Your task to perform on an android device: Search for "razer naga" on target.com, select the first entry, and add it to the cart. Image 0: 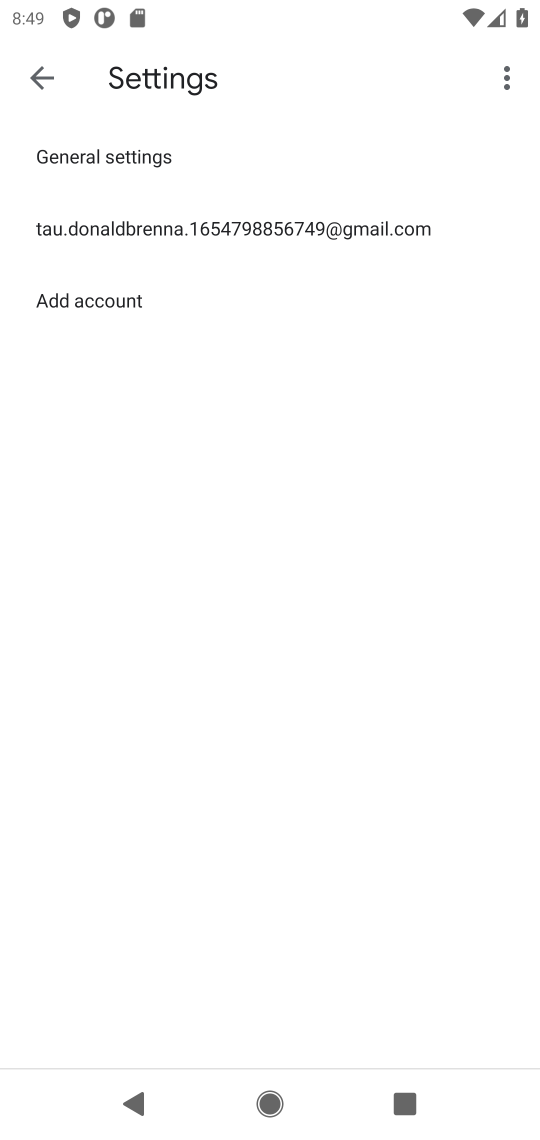
Step 0: press home button
Your task to perform on an android device: Search for "razer naga" on target.com, select the first entry, and add it to the cart. Image 1: 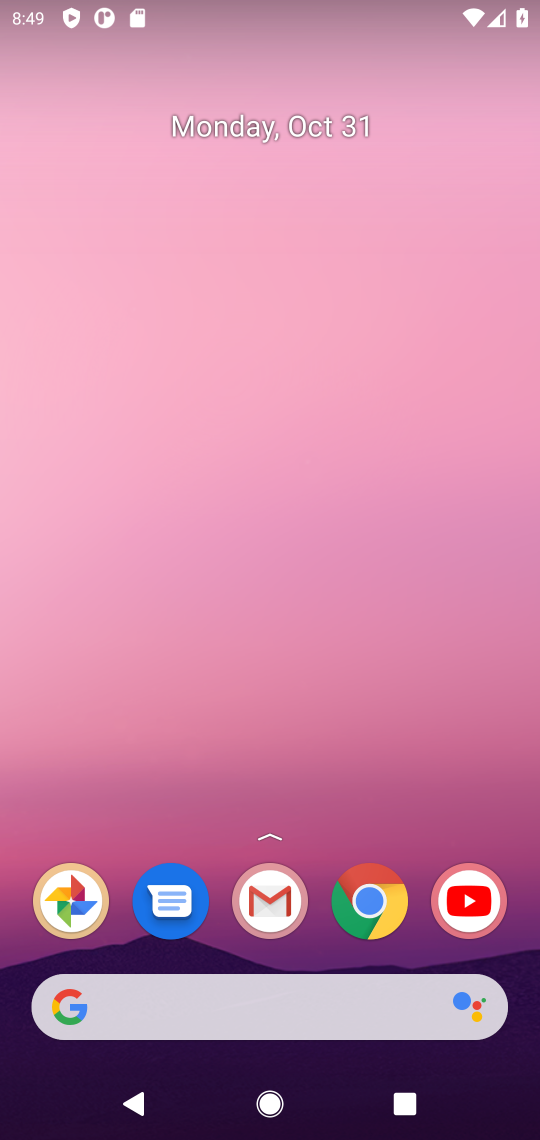
Step 1: drag from (193, 942) to (201, 146)
Your task to perform on an android device: Search for "razer naga" on target.com, select the first entry, and add it to the cart. Image 2: 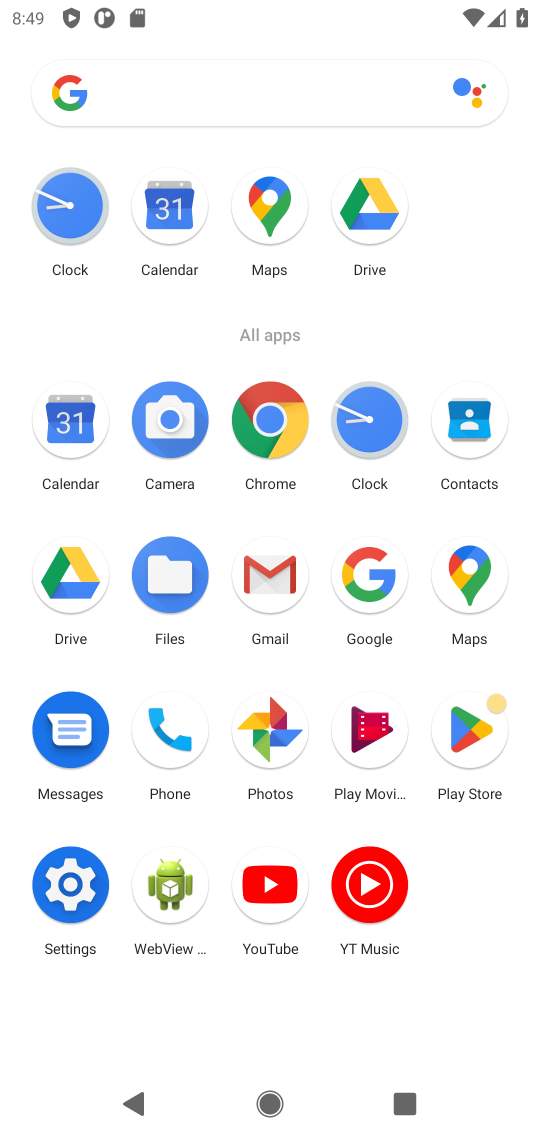
Step 2: click (372, 559)
Your task to perform on an android device: Search for "razer naga" on target.com, select the first entry, and add it to the cart. Image 3: 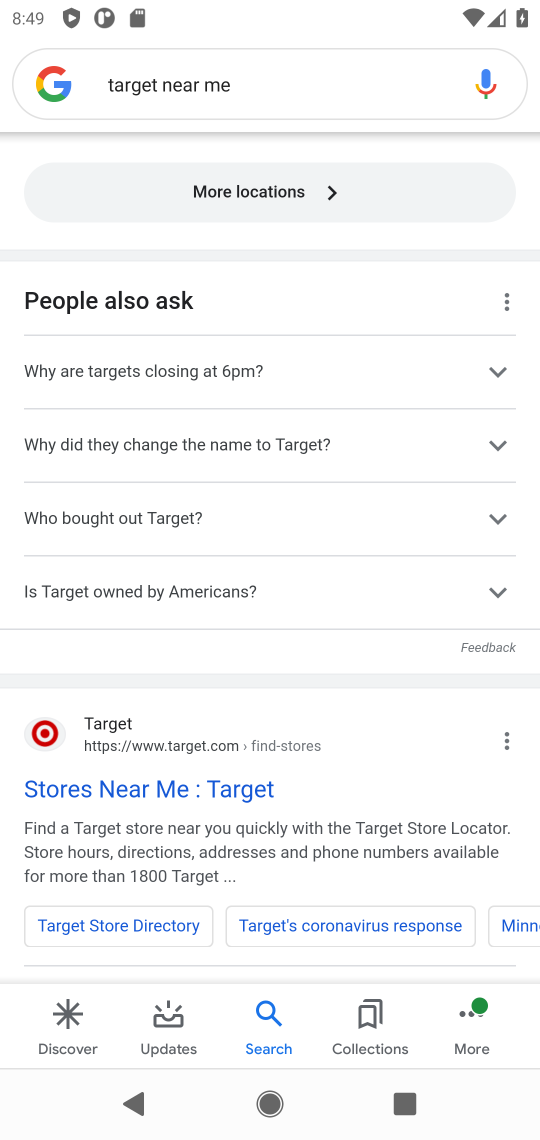
Step 3: click (48, 735)
Your task to perform on an android device: Search for "razer naga" on target.com, select the first entry, and add it to the cart. Image 4: 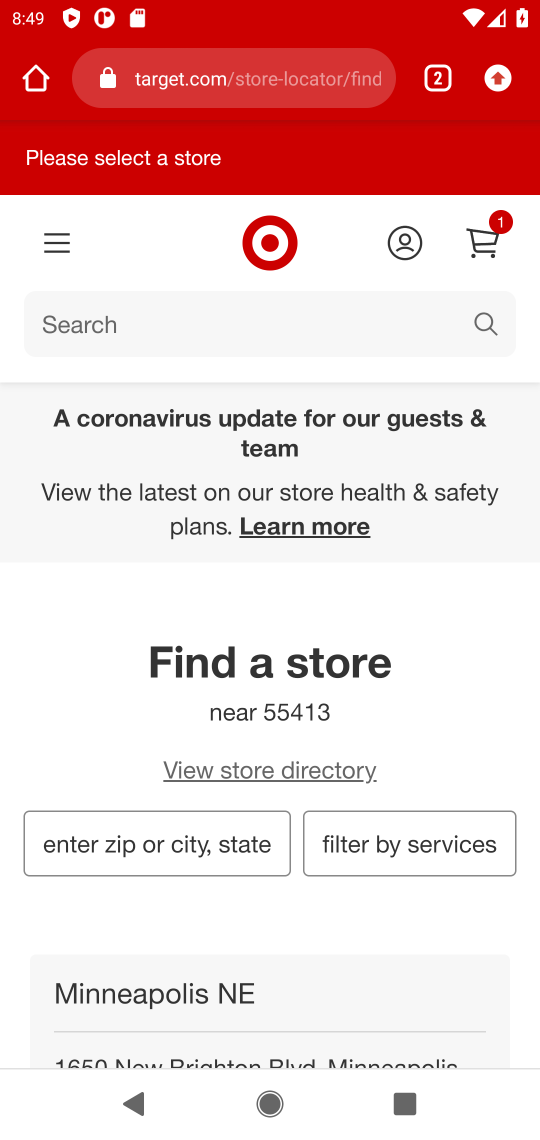
Step 4: click (220, 316)
Your task to perform on an android device: Search for "razer naga" on target.com, select the first entry, and add it to the cart. Image 5: 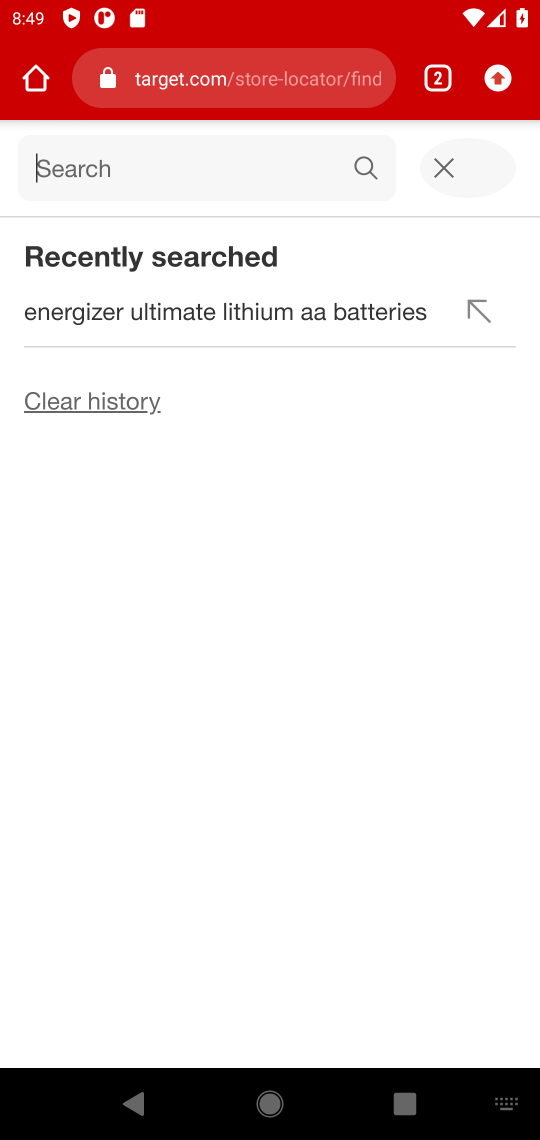
Step 5: type "razer naga"  "
Your task to perform on an android device: Search for "razer naga" on target.com, select the first entry, and add it to the cart. Image 6: 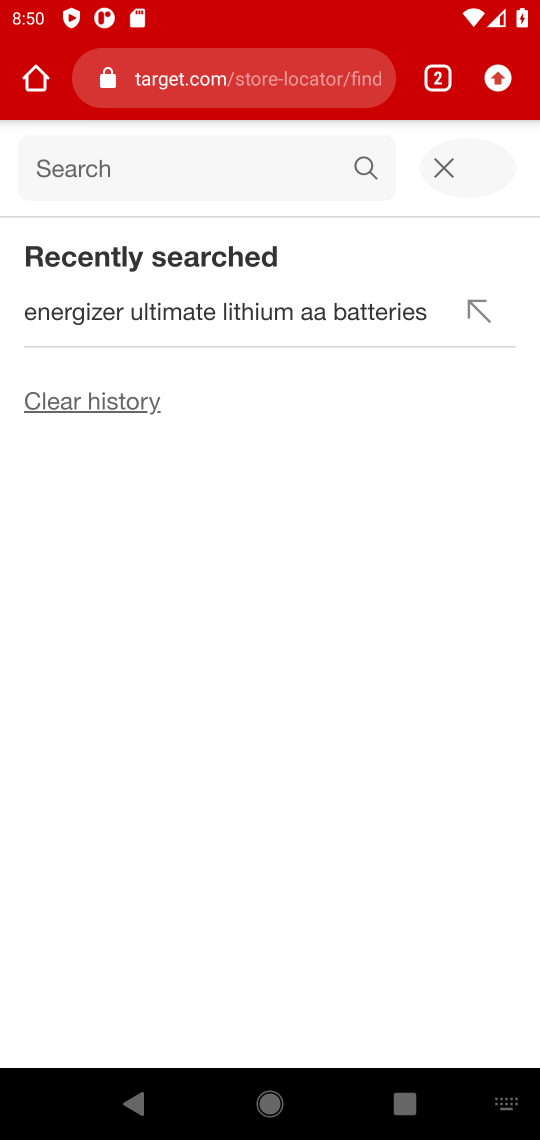
Step 6: click (120, 152)
Your task to perform on an android device: Search for "razer naga" on target.com, select the first entry, and add it to the cart. Image 7: 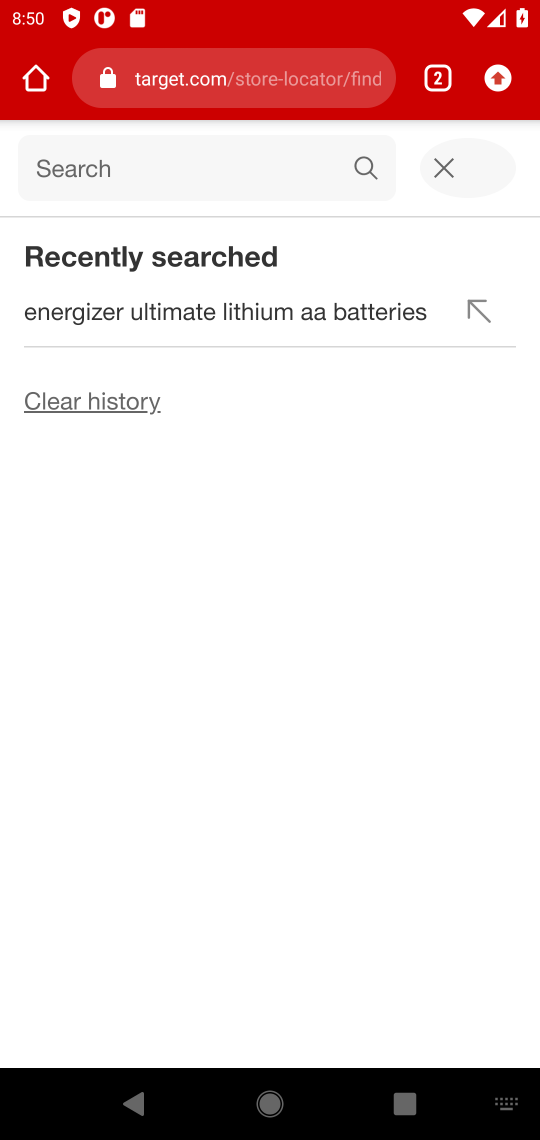
Step 7: type "razer naga "
Your task to perform on an android device: Search for "razer naga" on target.com, select the first entry, and add it to the cart. Image 8: 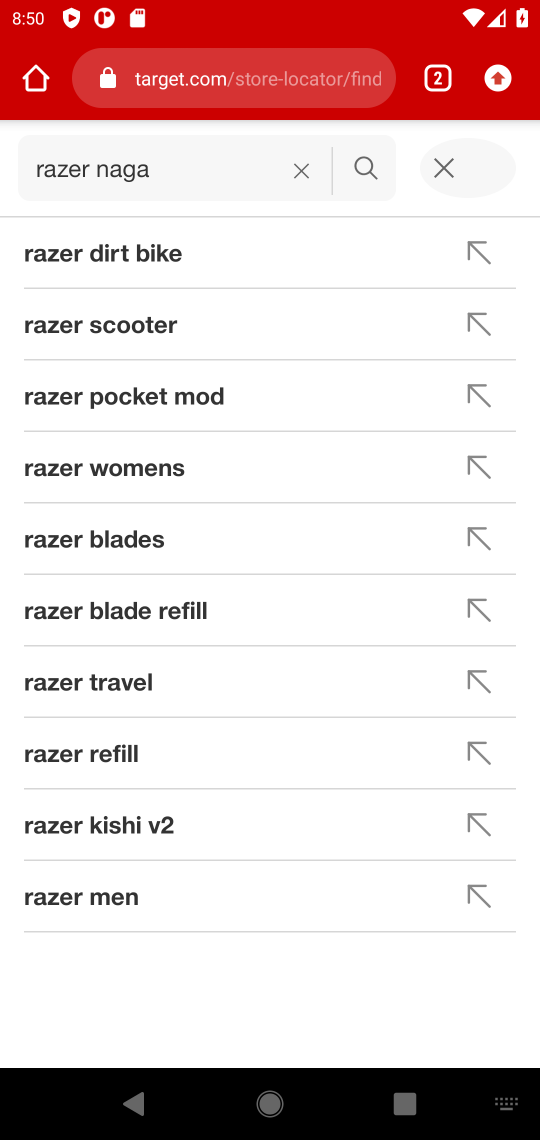
Step 8: click (121, 537)
Your task to perform on an android device: Search for "razer naga" on target.com, select the first entry, and add it to the cart. Image 9: 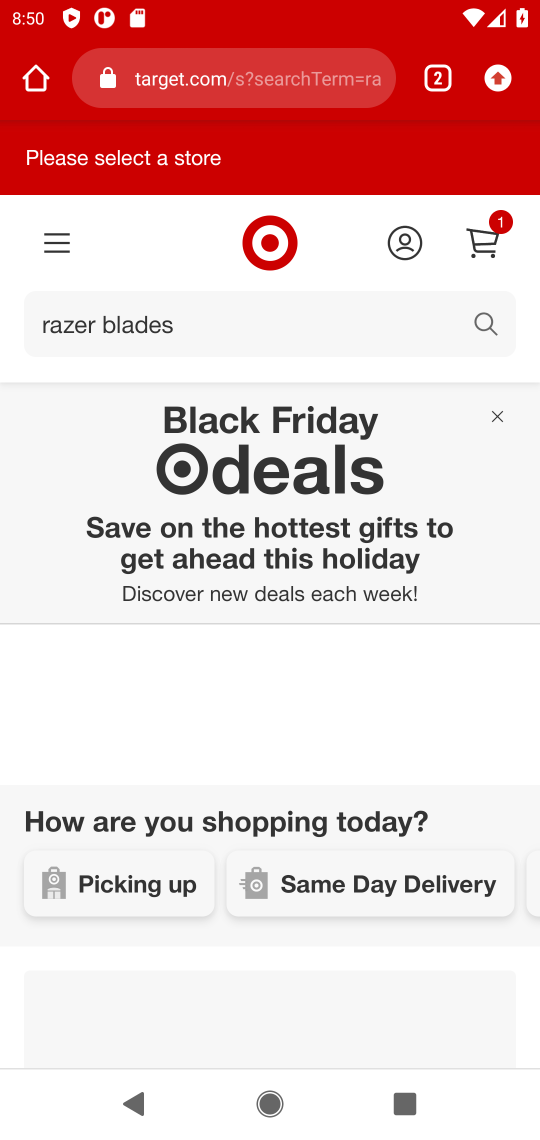
Step 9: drag from (189, 946) to (269, 369)
Your task to perform on an android device: Search for "razer naga" on target.com, select the first entry, and add it to the cart. Image 10: 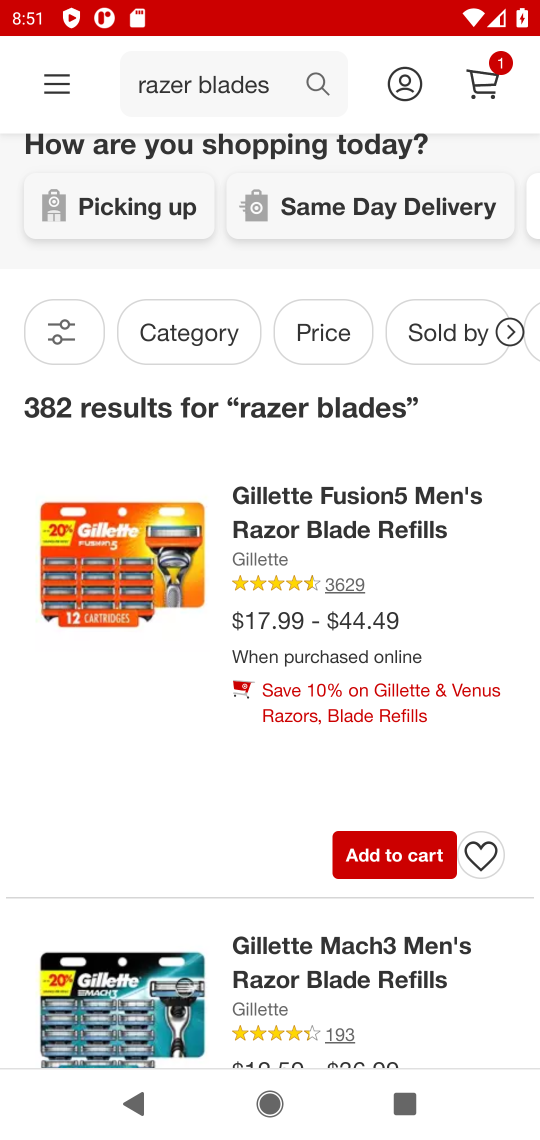
Step 10: click (391, 844)
Your task to perform on an android device: Search for "razer naga" on target.com, select the first entry, and add it to the cart. Image 11: 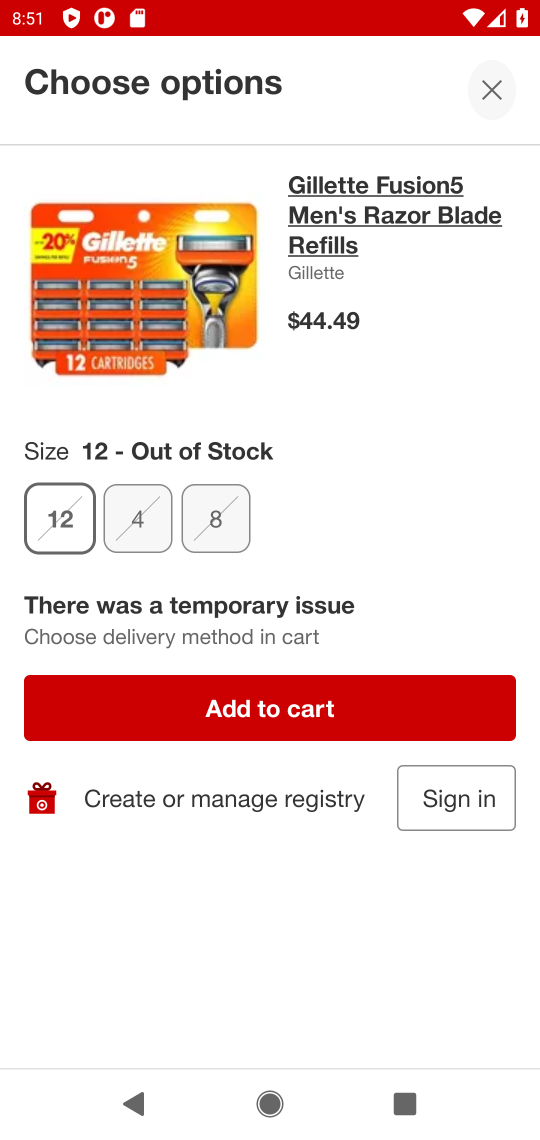
Step 11: click (239, 711)
Your task to perform on an android device: Search for "razer naga" on target.com, select the first entry, and add it to the cart. Image 12: 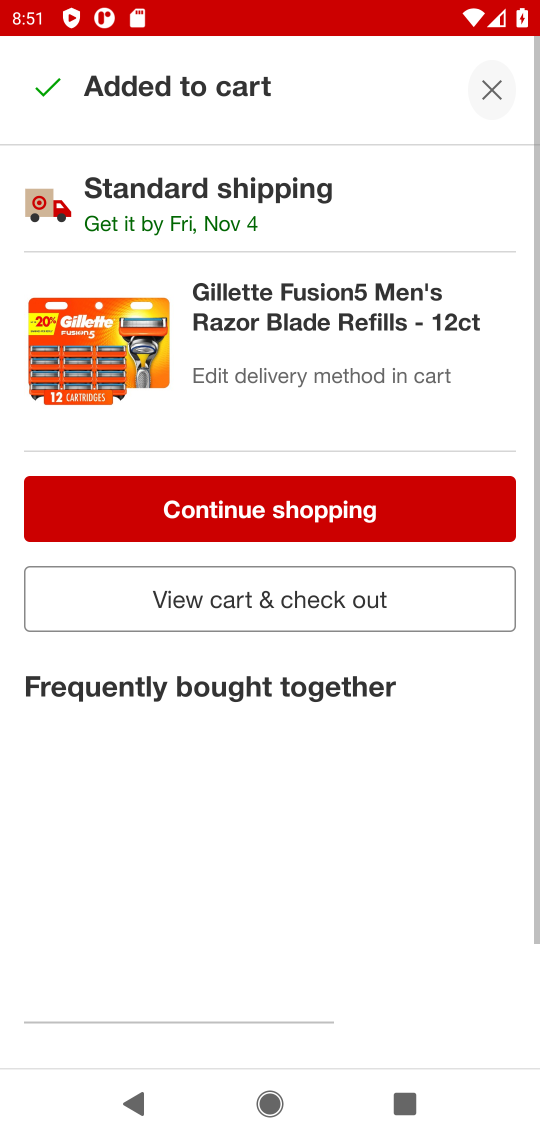
Step 12: task complete